Your task to perform on an android device: Open wifi settings Image 0: 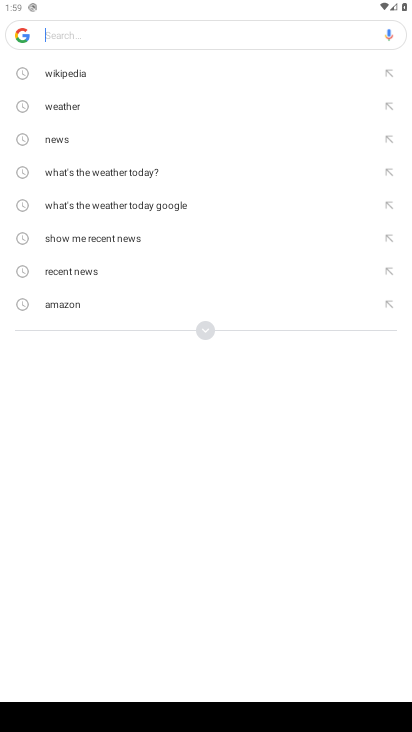
Step 0: press home button
Your task to perform on an android device: Open wifi settings Image 1: 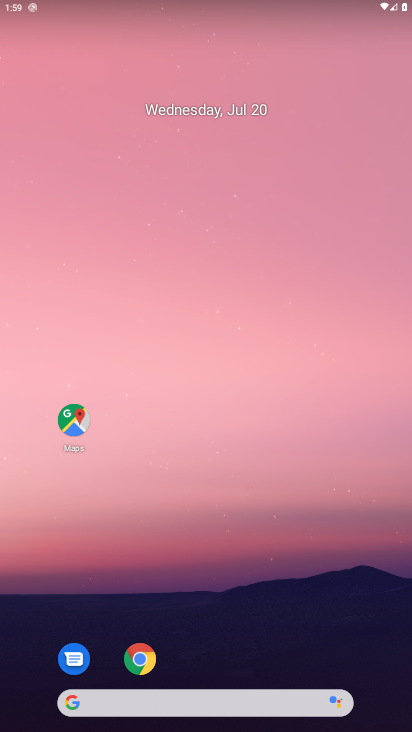
Step 1: drag from (45, 690) to (264, 45)
Your task to perform on an android device: Open wifi settings Image 2: 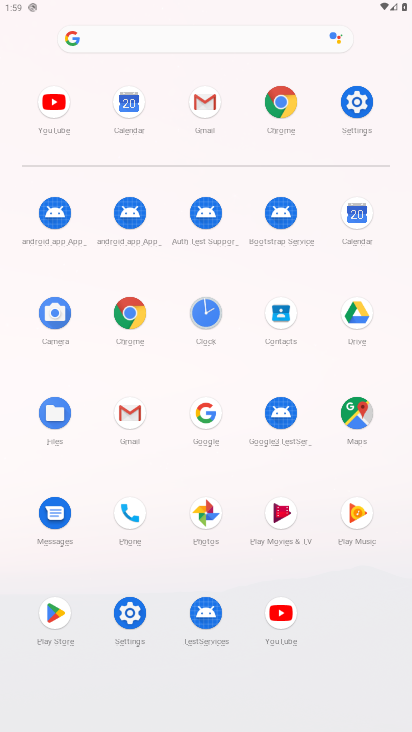
Step 2: click (135, 610)
Your task to perform on an android device: Open wifi settings Image 3: 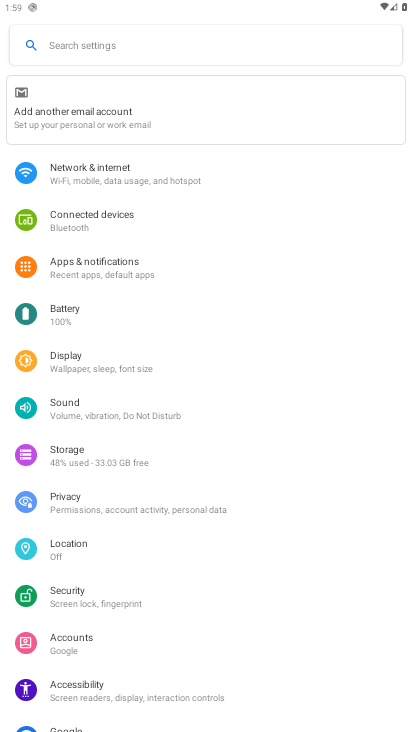
Step 3: click (92, 164)
Your task to perform on an android device: Open wifi settings Image 4: 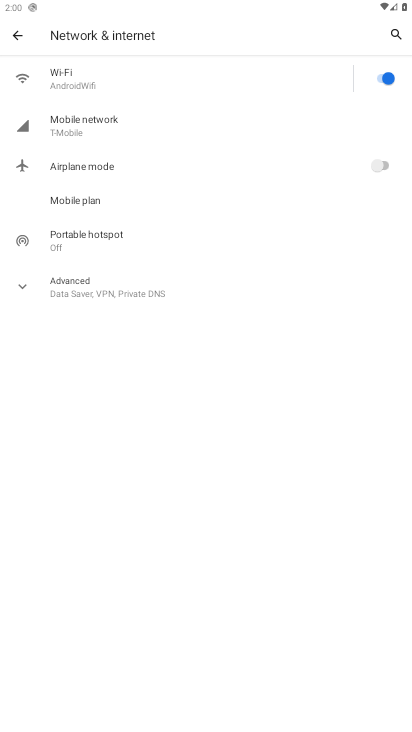
Step 4: task complete